Your task to perform on an android device: set the timer Image 0: 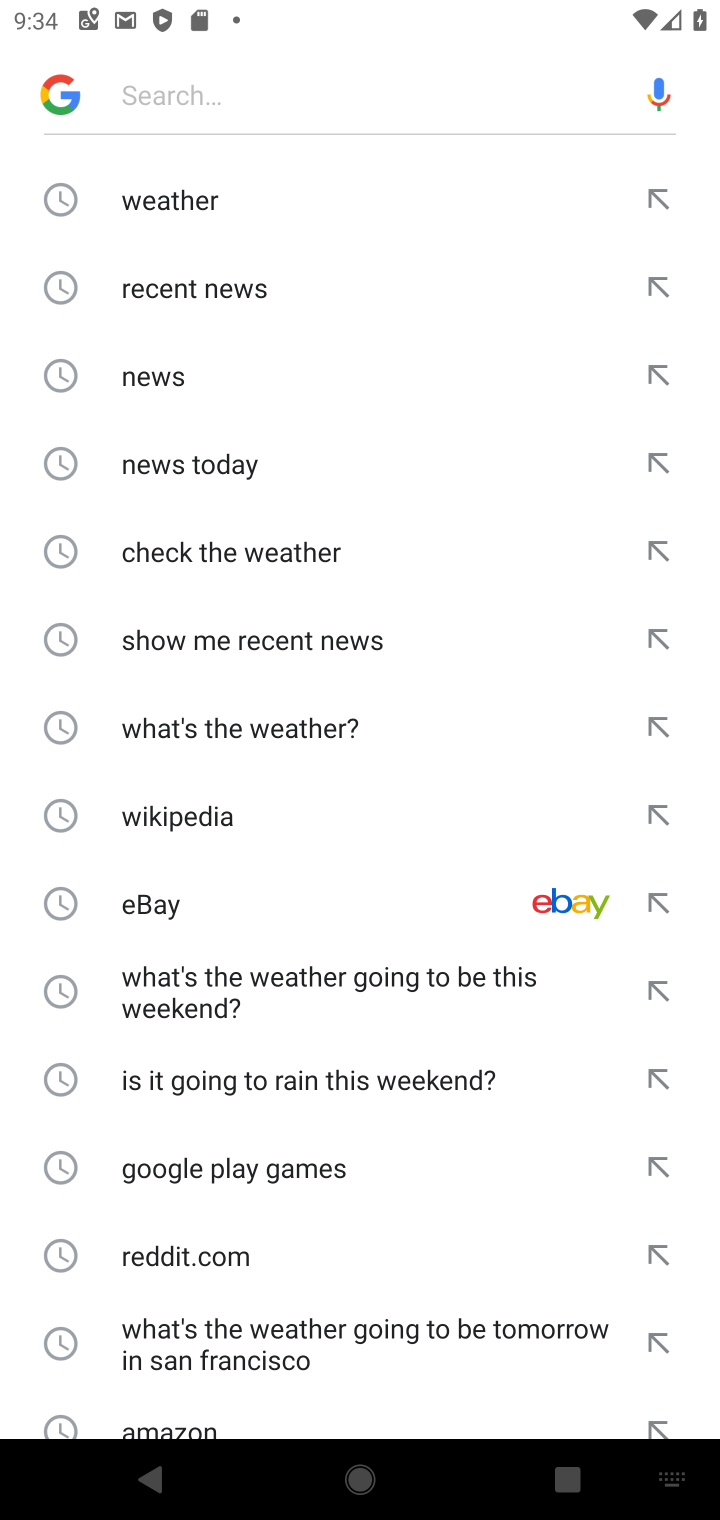
Step 0: click (39, 69)
Your task to perform on an android device: set the timer Image 1: 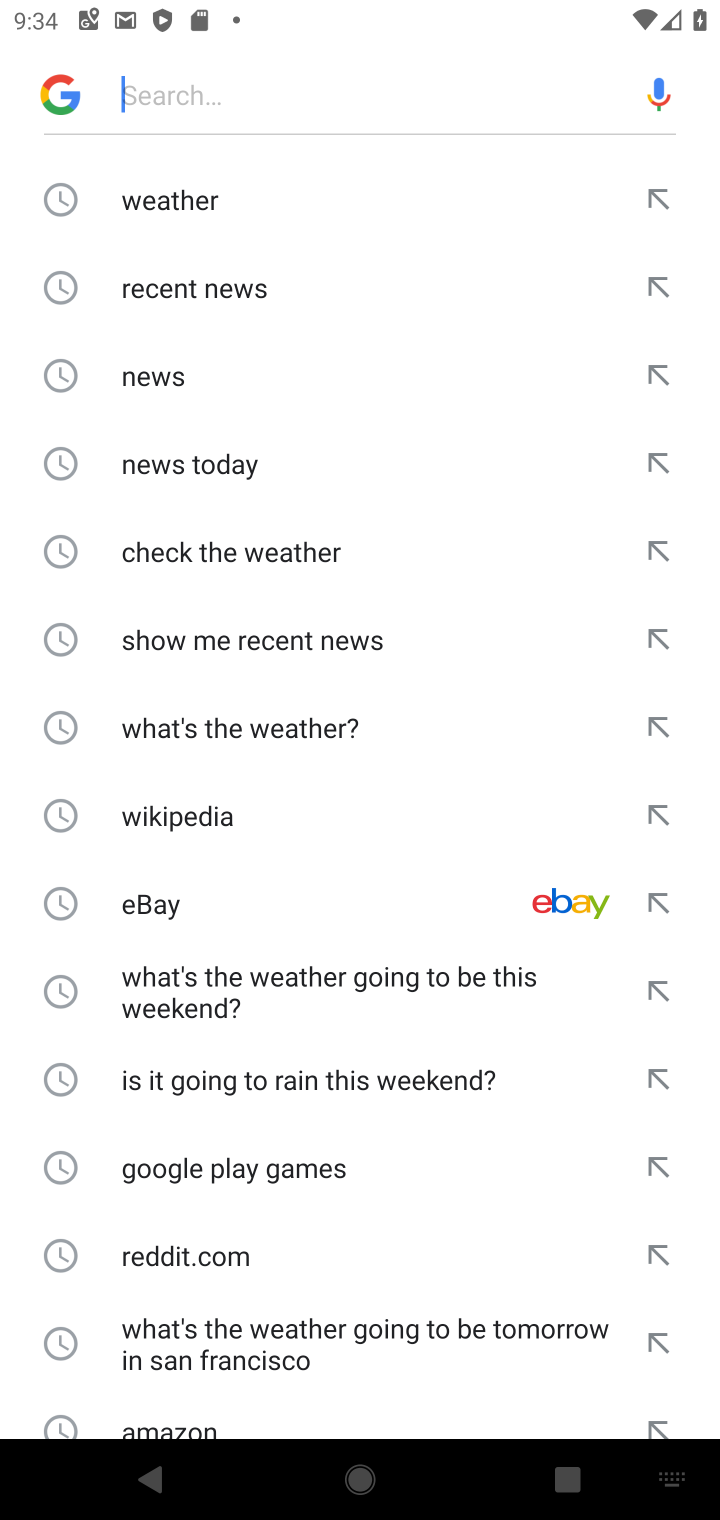
Step 1: press back button
Your task to perform on an android device: set the timer Image 2: 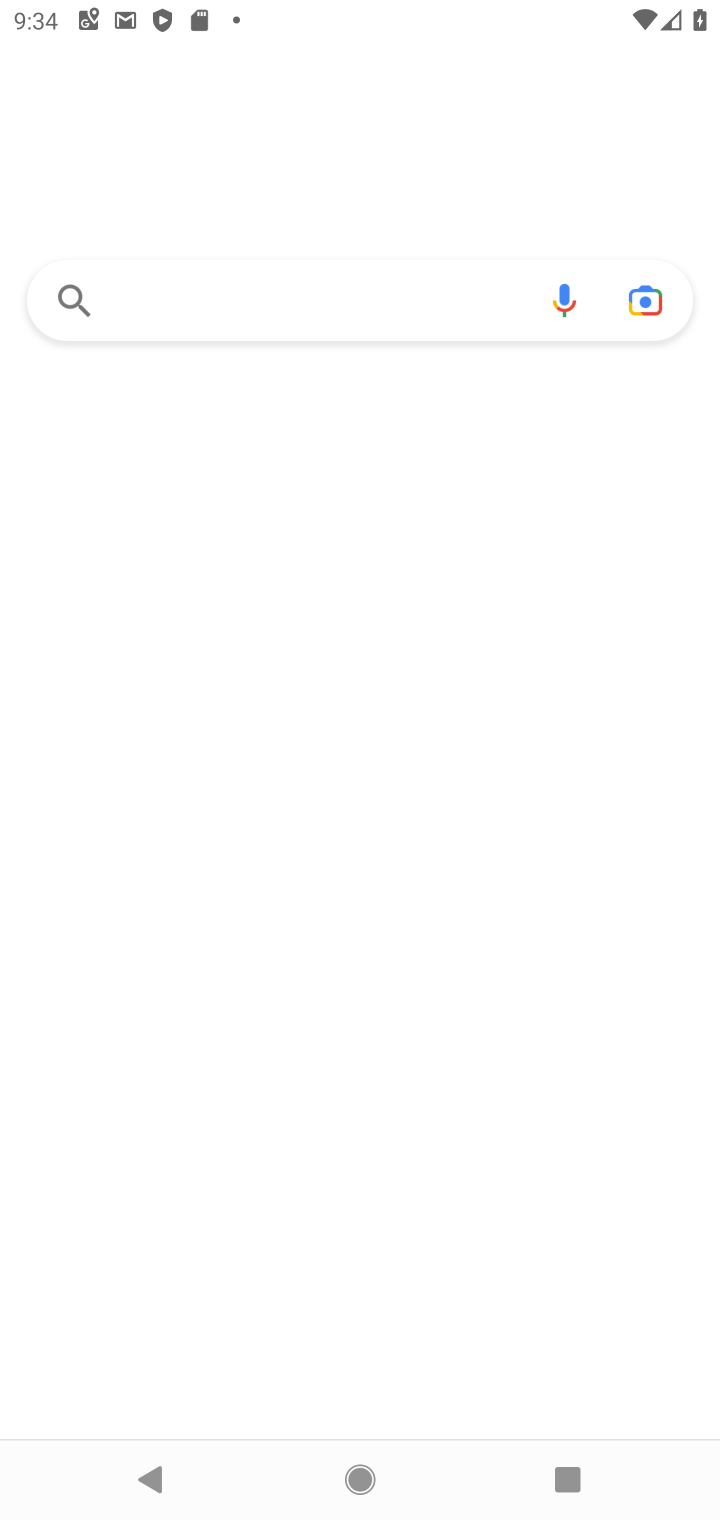
Step 2: press home button
Your task to perform on an android device: set the timer Image 3: 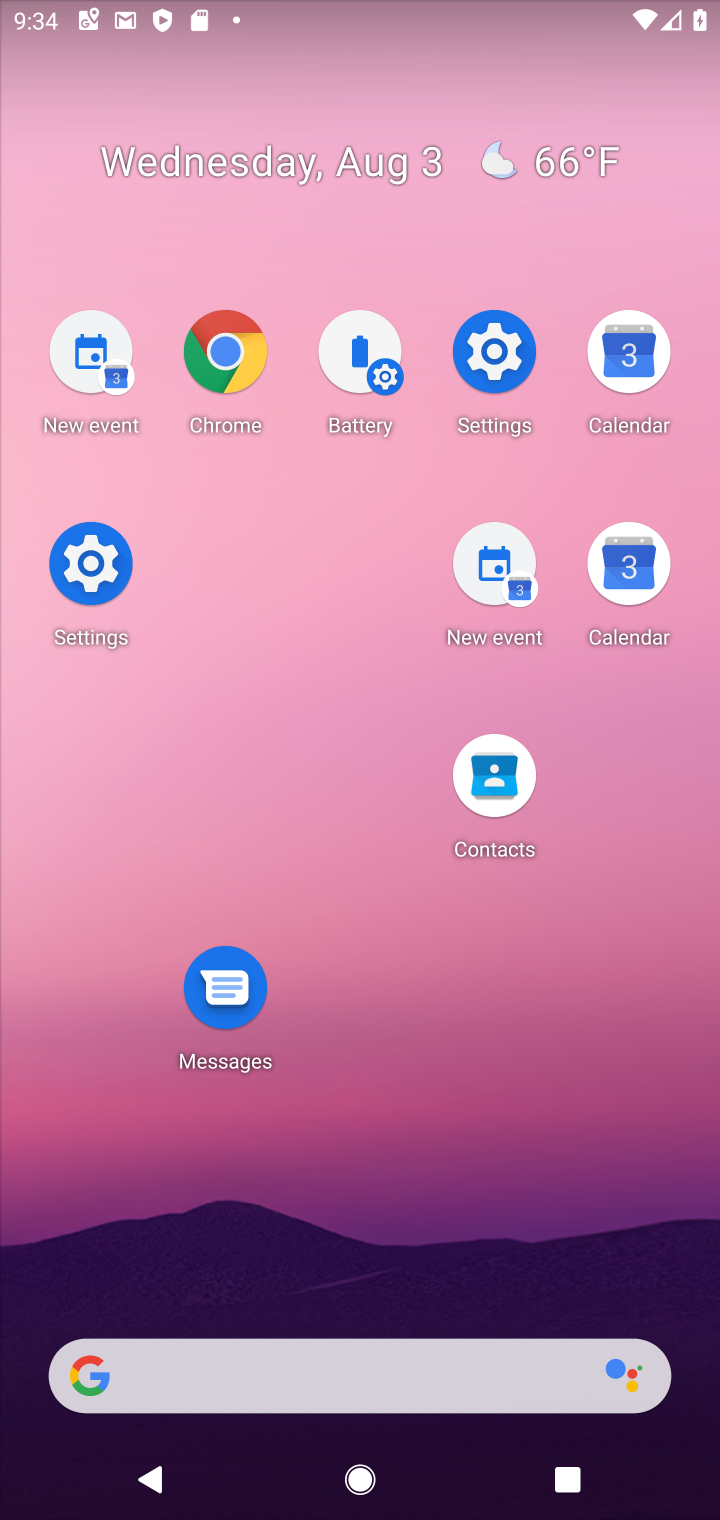
Step 3: press back button
Your task to perform on an android device: set the timer Image 4: 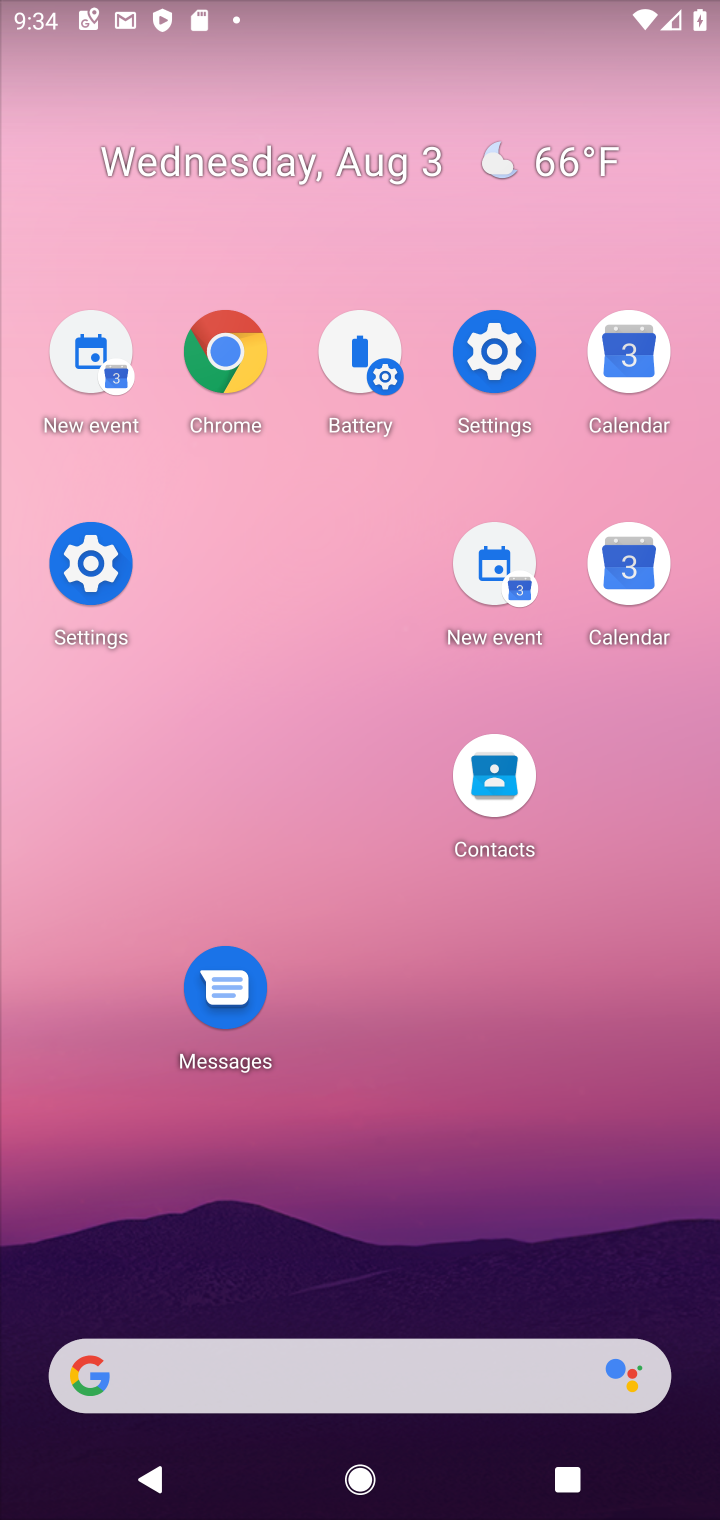
Step 4: press back button
Your task to perform on an android device: set the timer Image 5: 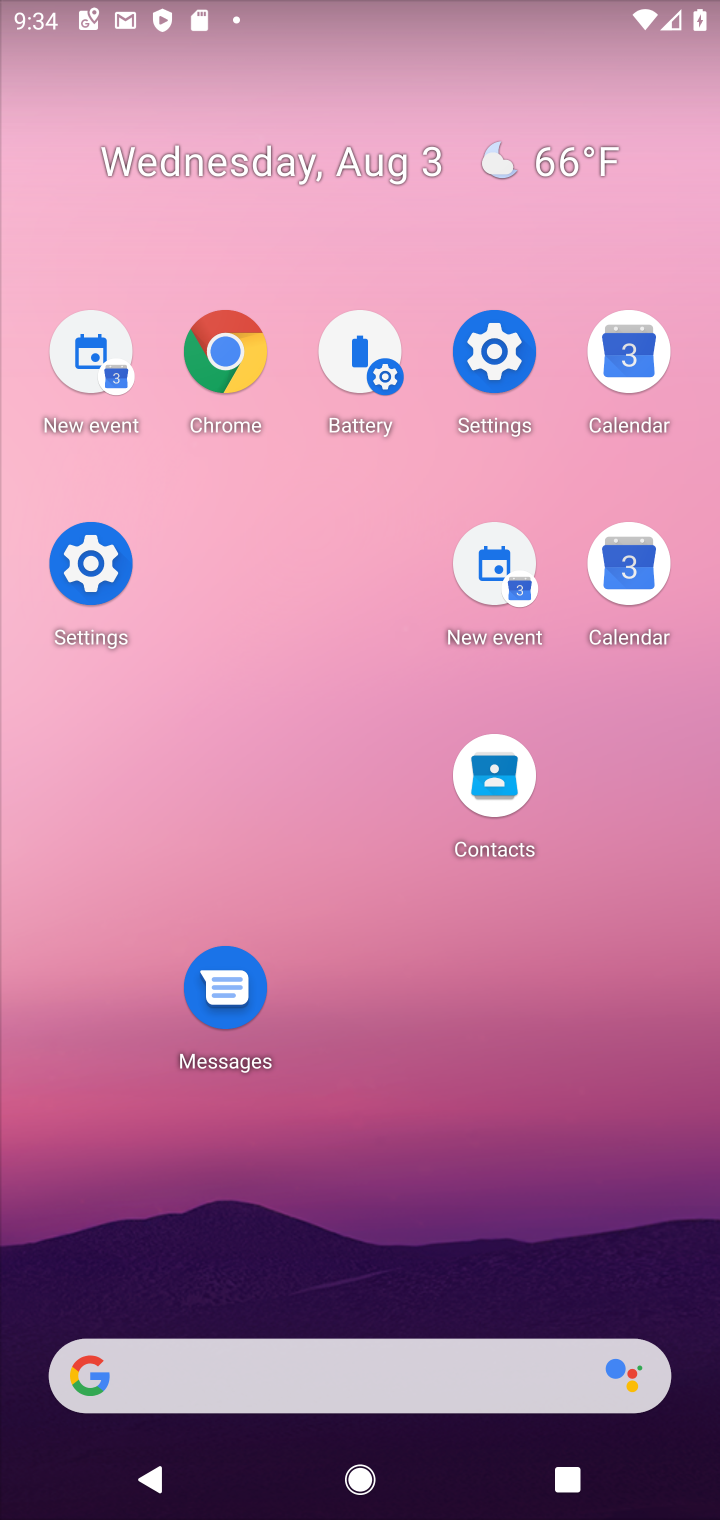
Step 5: drag from (374, 361) to (301, 531)
Your task to perform on an android device: set the timer Image 6: 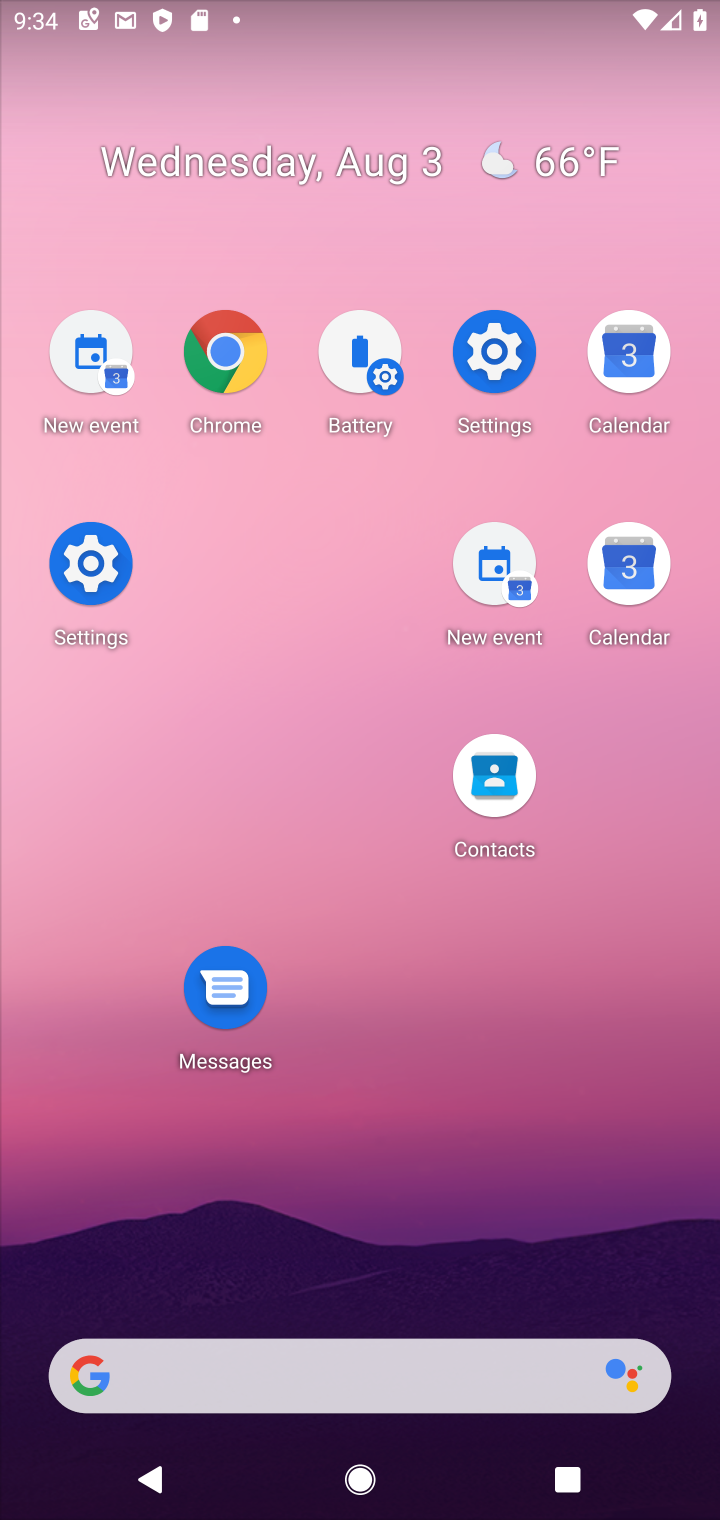
Step 6: drag from (329, 1001) to (315, 375)
Your task to perform on an android device: set the timer Image 7: 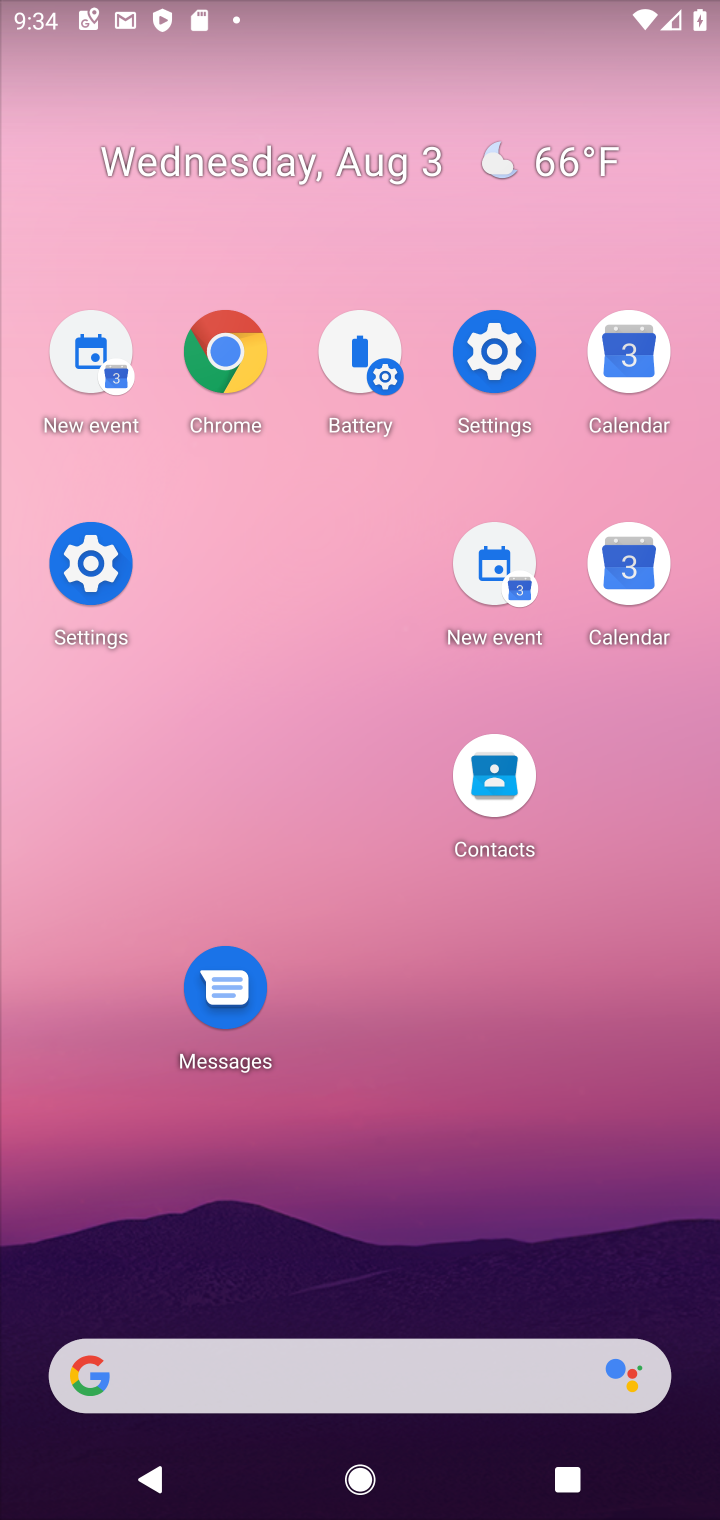
Step 7: drag from (317, 1090) to (256, 562)
Your task to perform on an android device: set the timer Image 8: 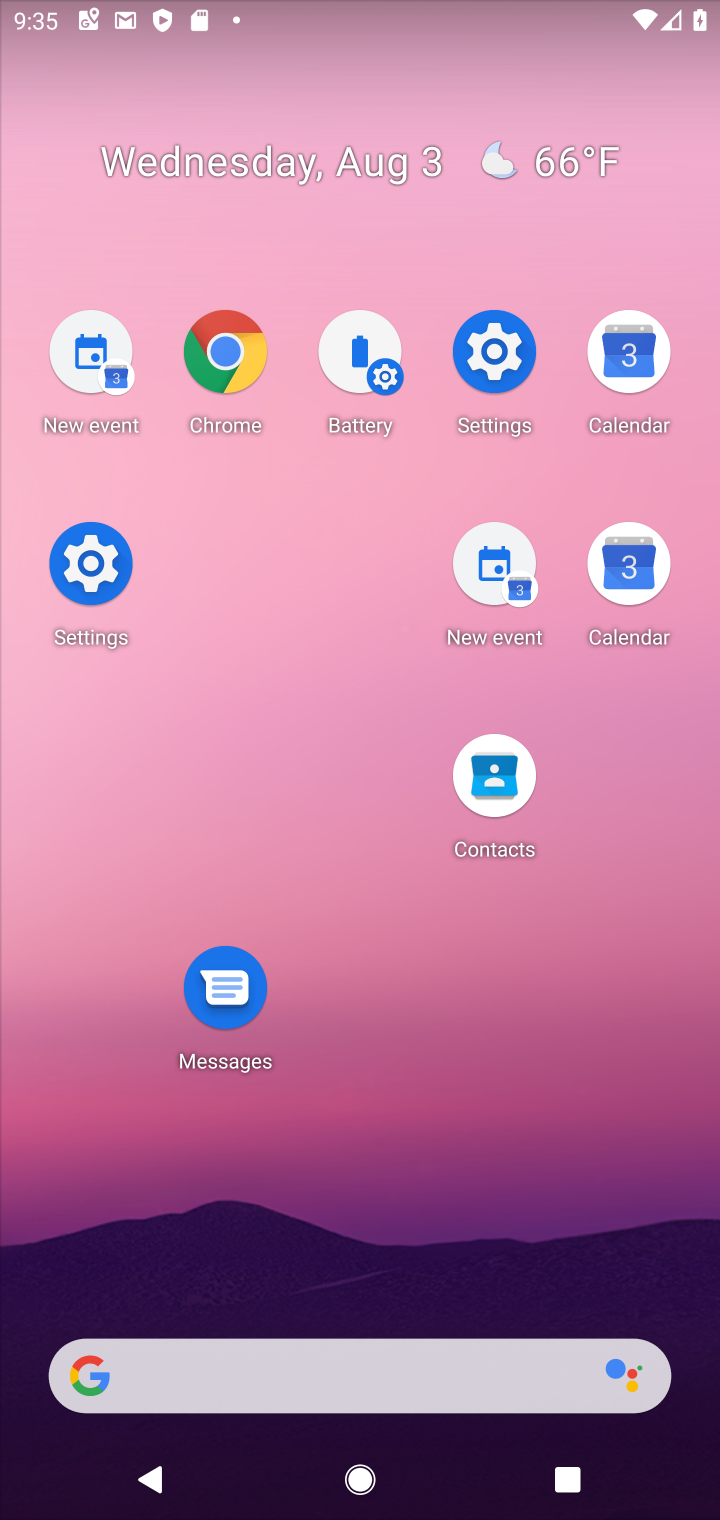
Step 8: drag from (472, 1082) to (405, 262)
Your task to perform on an android device: set the timer Image 9: 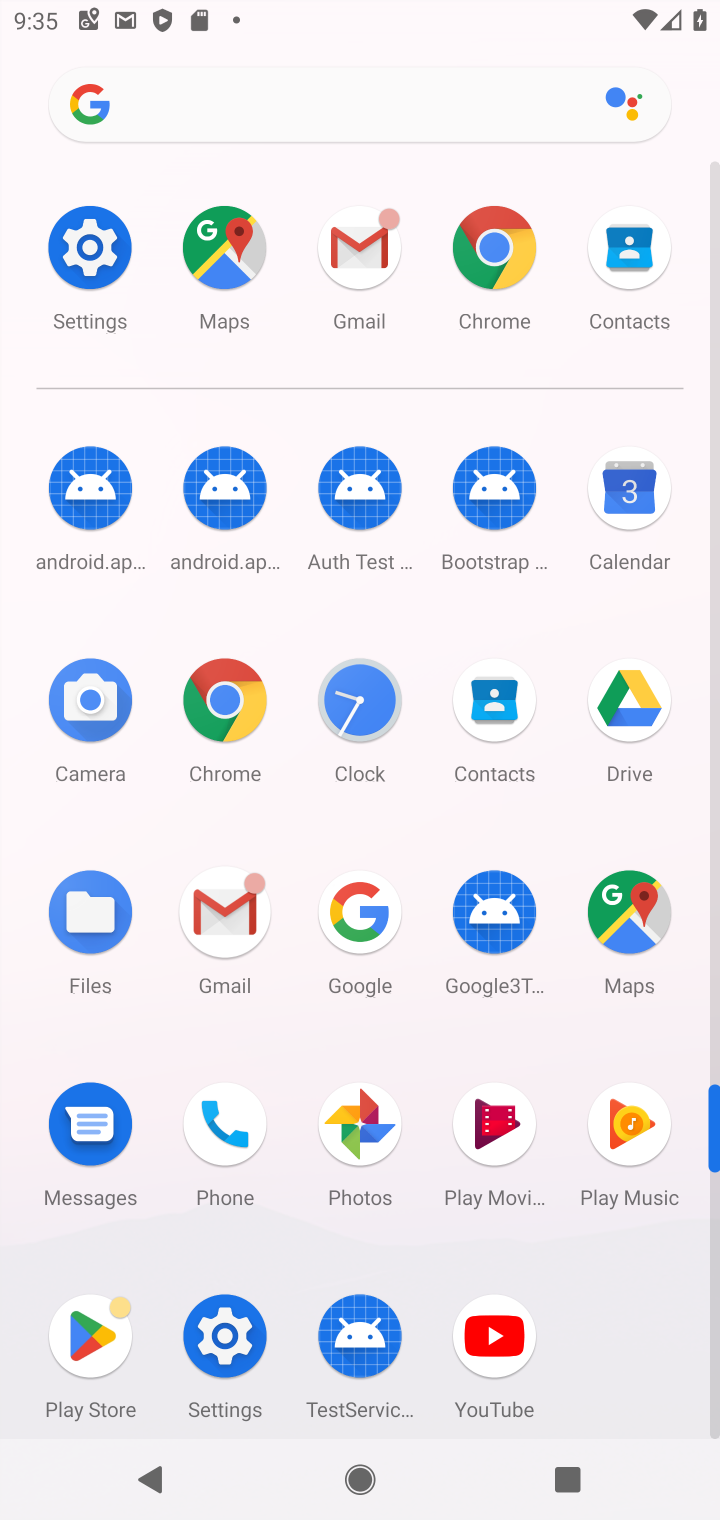
Step 9: click (354, 686)
Your task to perform on an android device: set the timer Image 10: 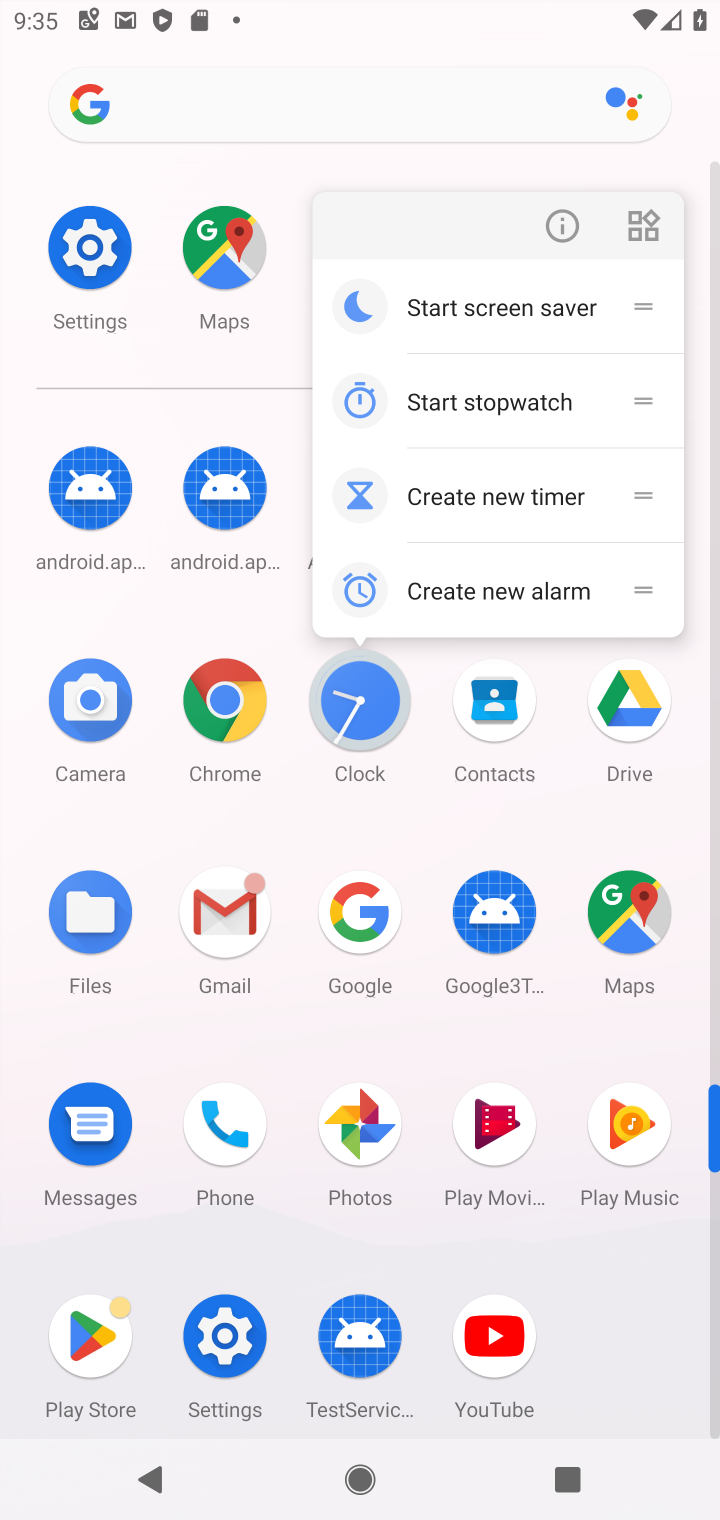
Step 10: click (358, 690)
Your task to perform on an android device: set the timer Image 11: 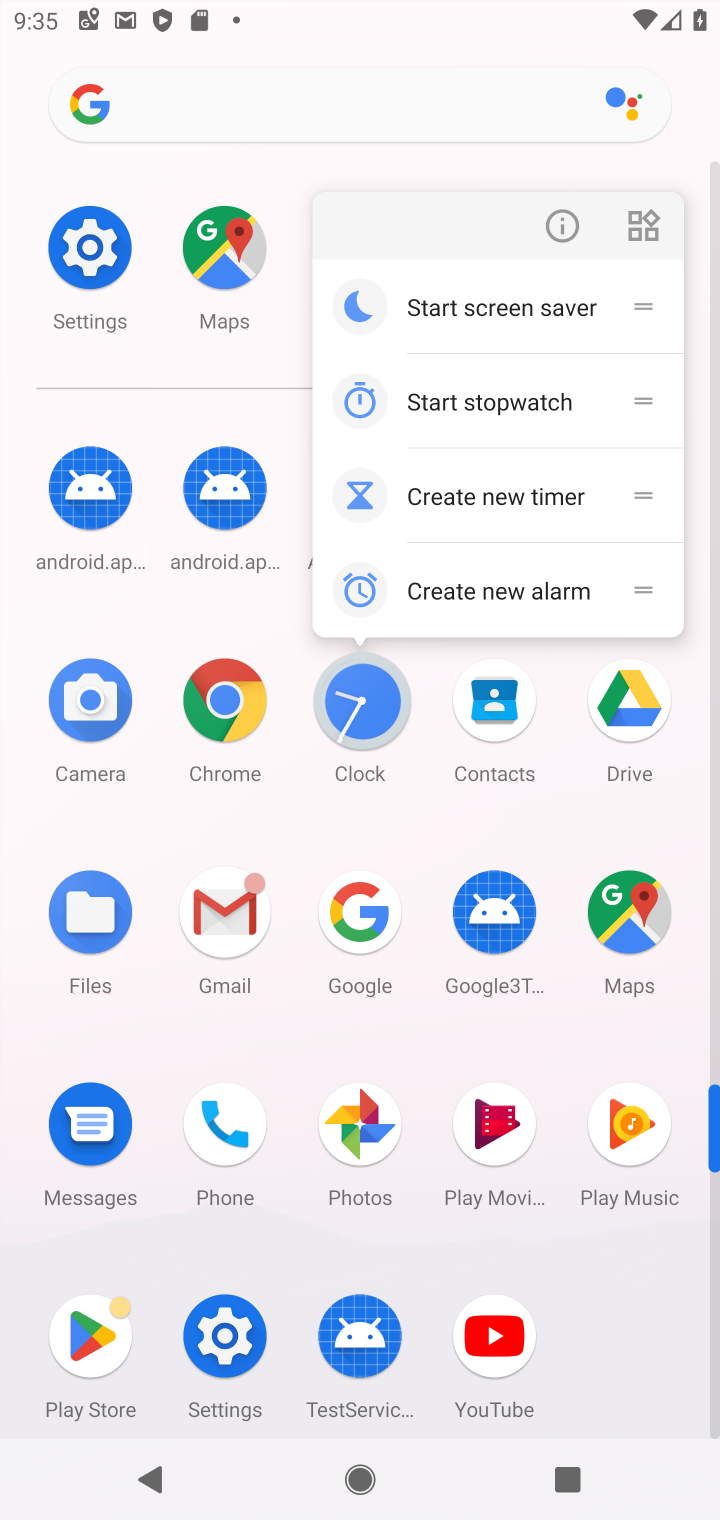
Step 11: click (370, 699)
Your task to perform on an android device: set the timer Image 12: 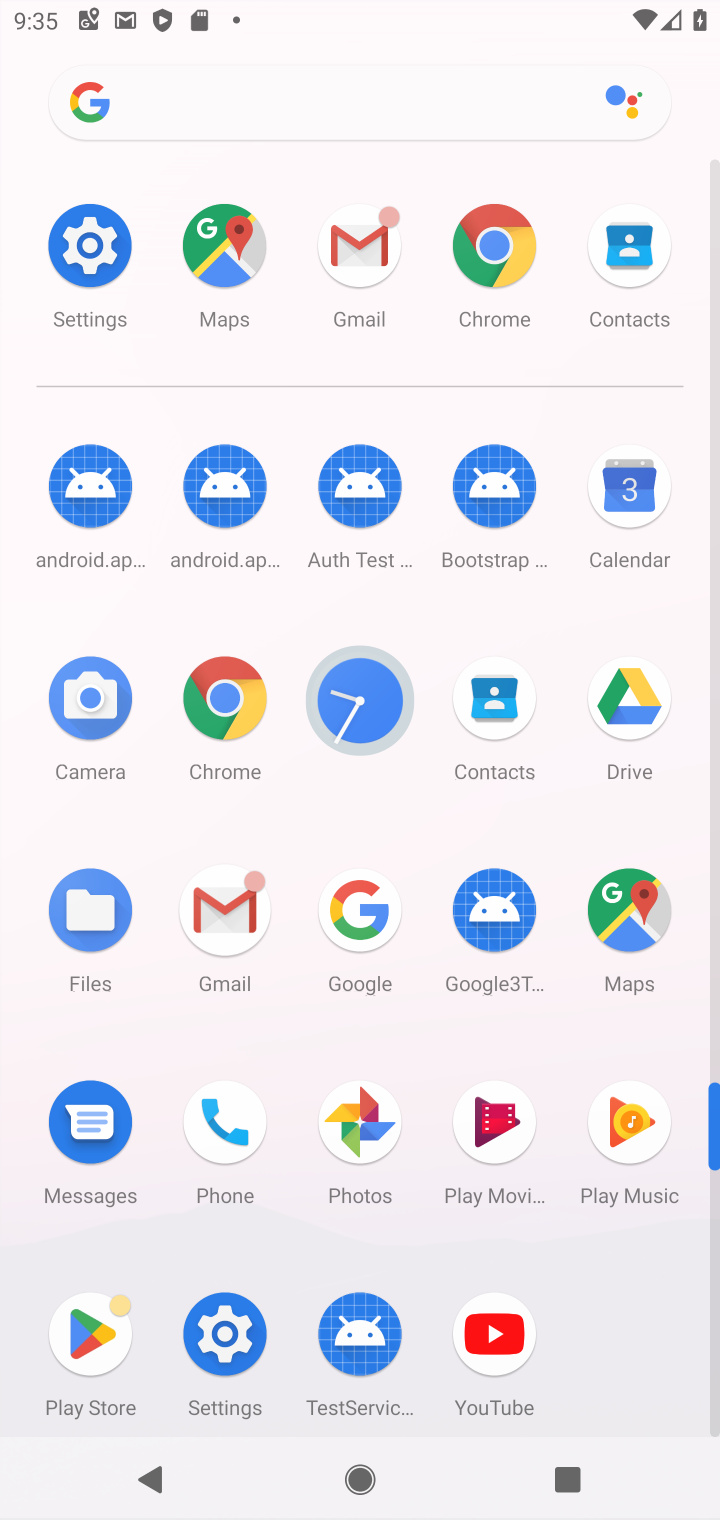
Step 12: click (379, 708)
Your task to perform on an android device: set the timer Image 13: 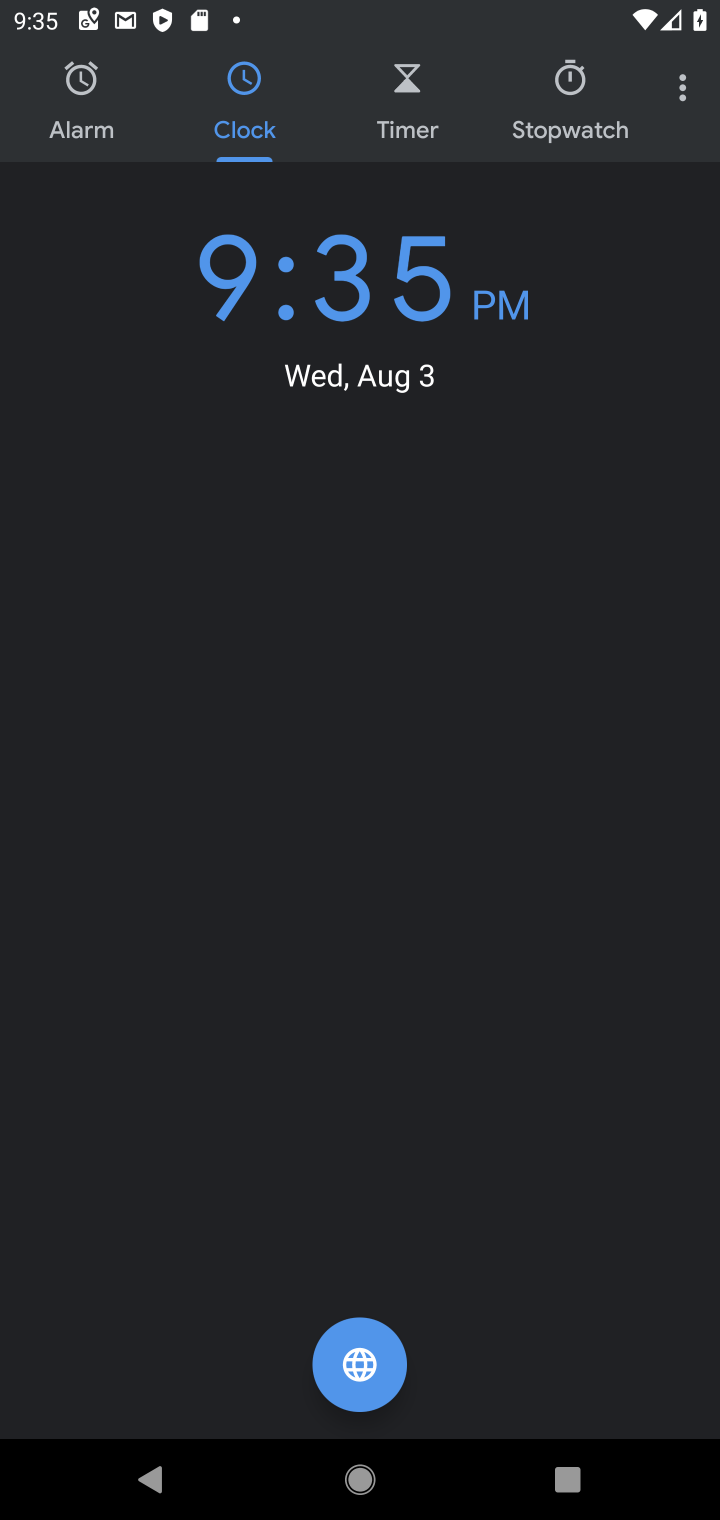
Step 13: click (398, 97)
Your task to perform on an android device: set the timer Image 14: 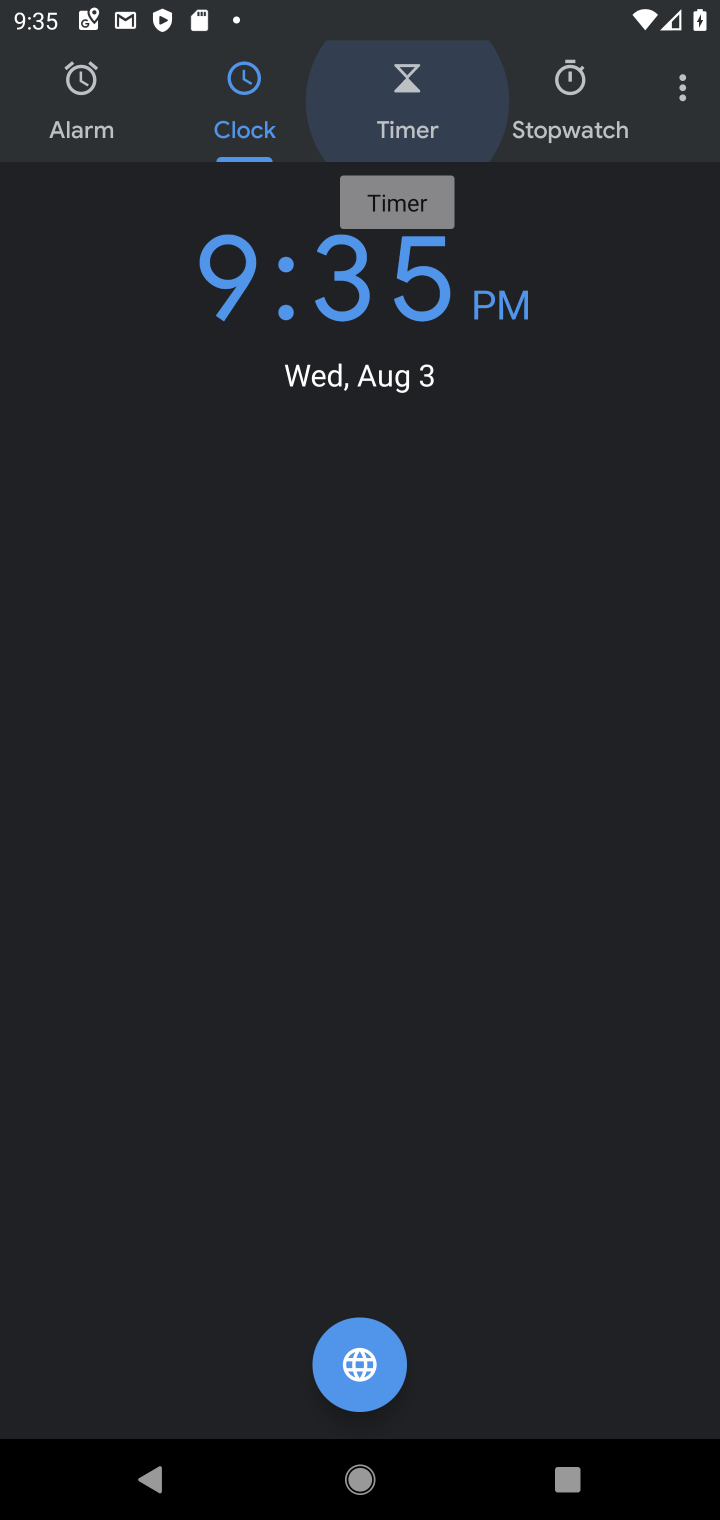
Step 14: click (405, 101)
Your task to perform on an android device: set the timer Image 15: 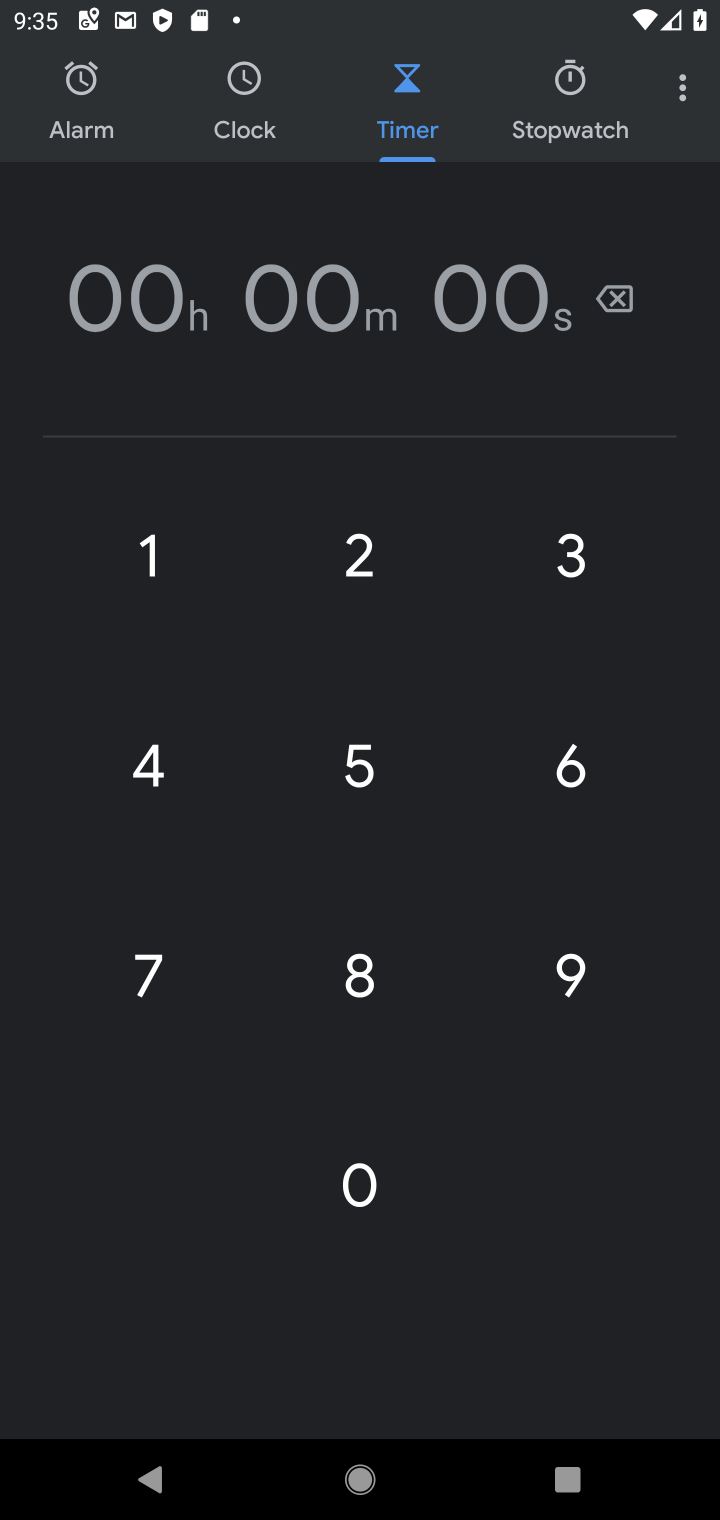
Step 15: click (359, 768)
Your task to perform on an android device: set the timer Image 16: 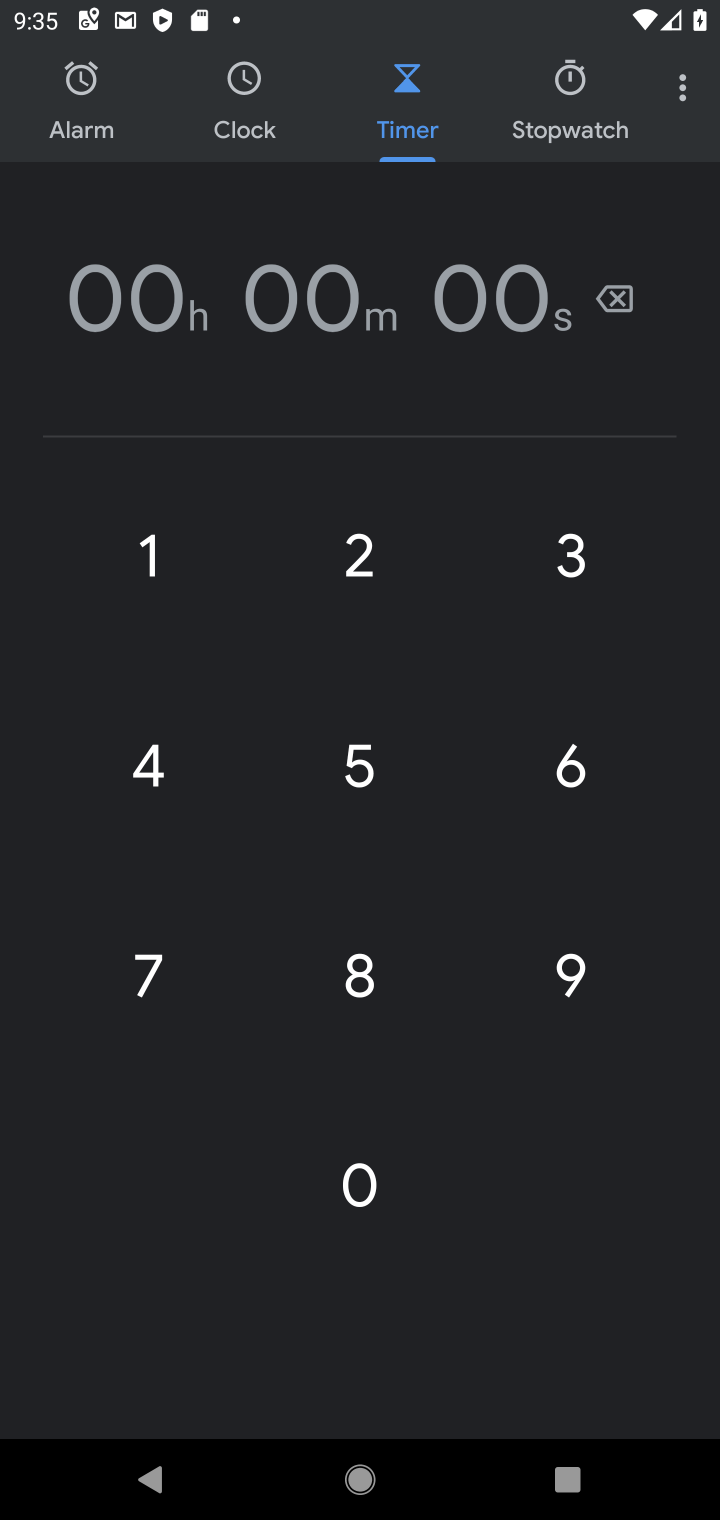
Step 16: click (359, 768)
Your task to perform on an android device: set the timer Image 17: 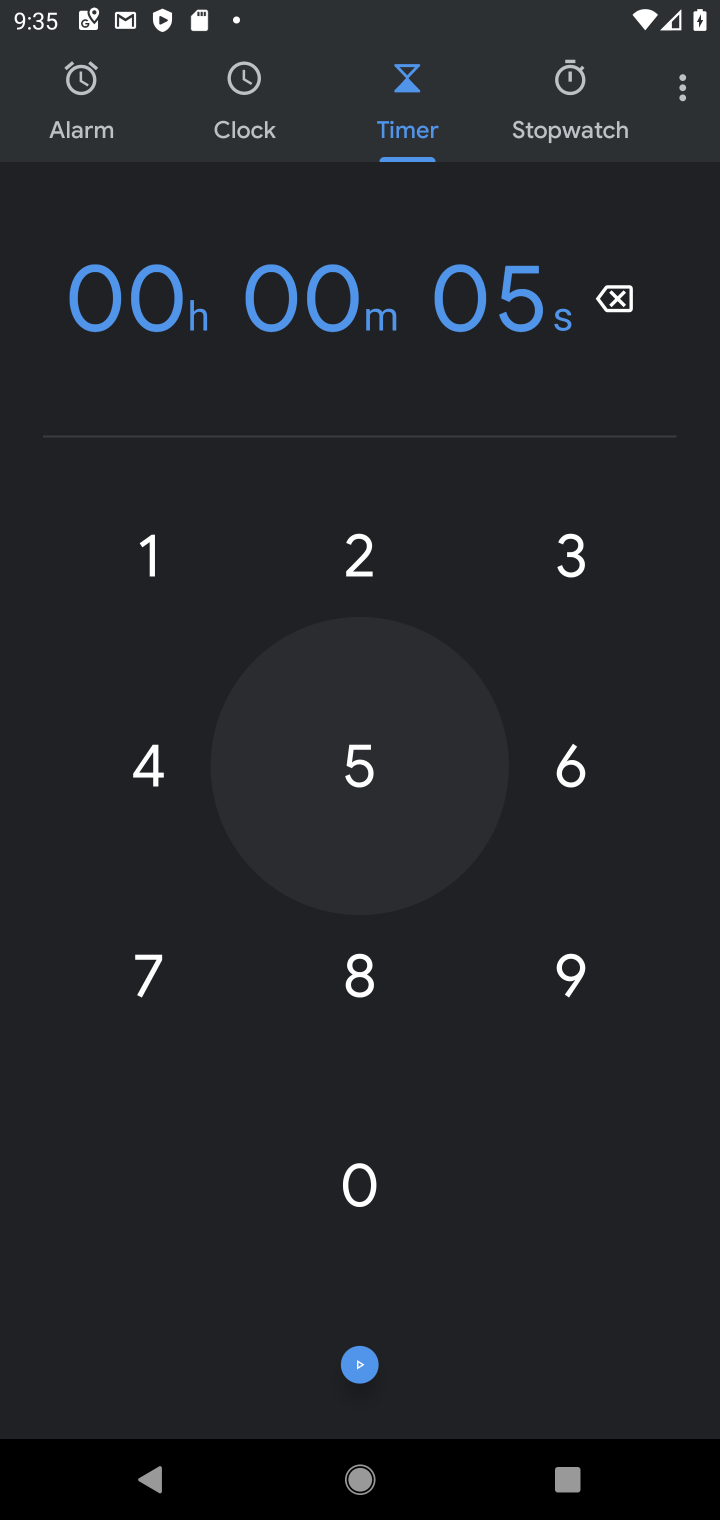
Step 17: click (359, 768)
Your task to perform on an android device: set the timer Image 18: 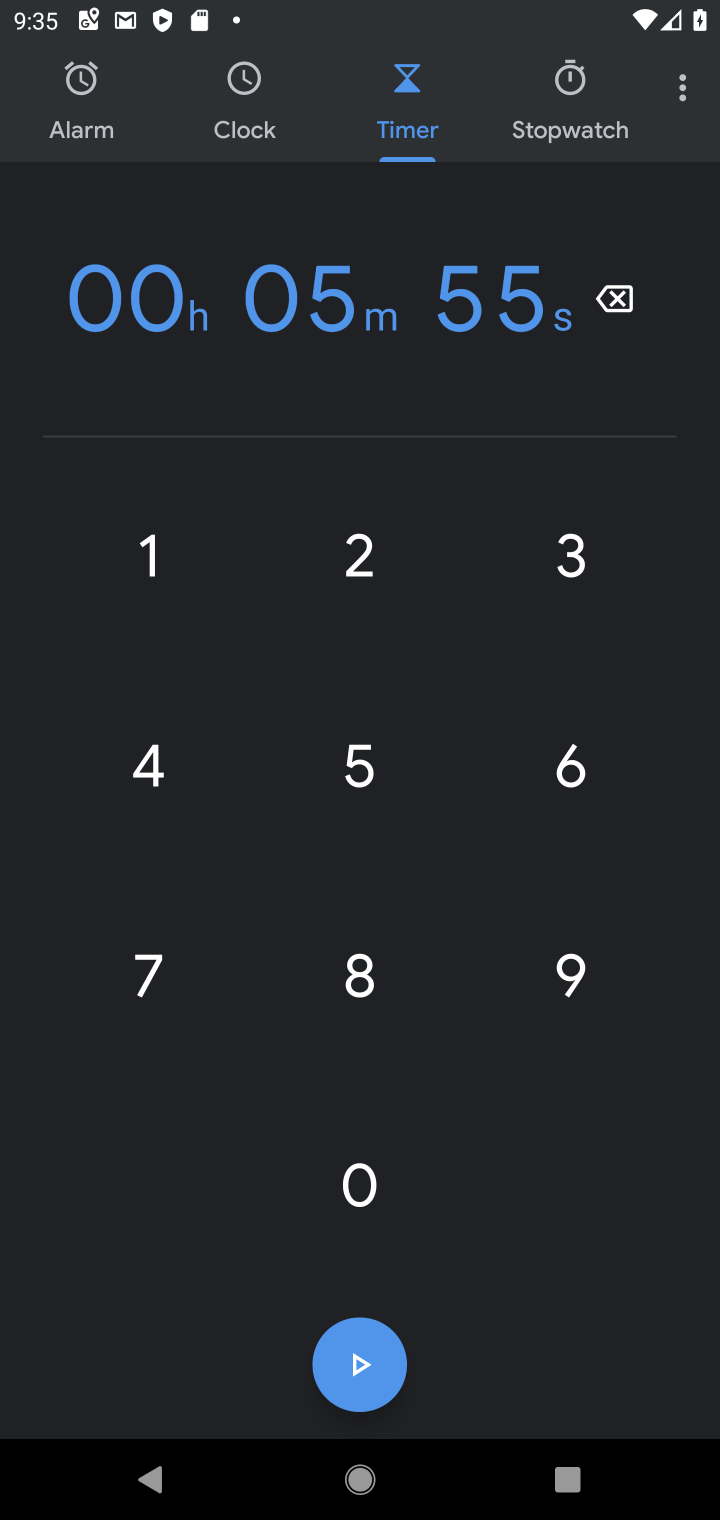
Step 18: click (359, 768)
Your task to perform on an android device: set the timer Image 19: 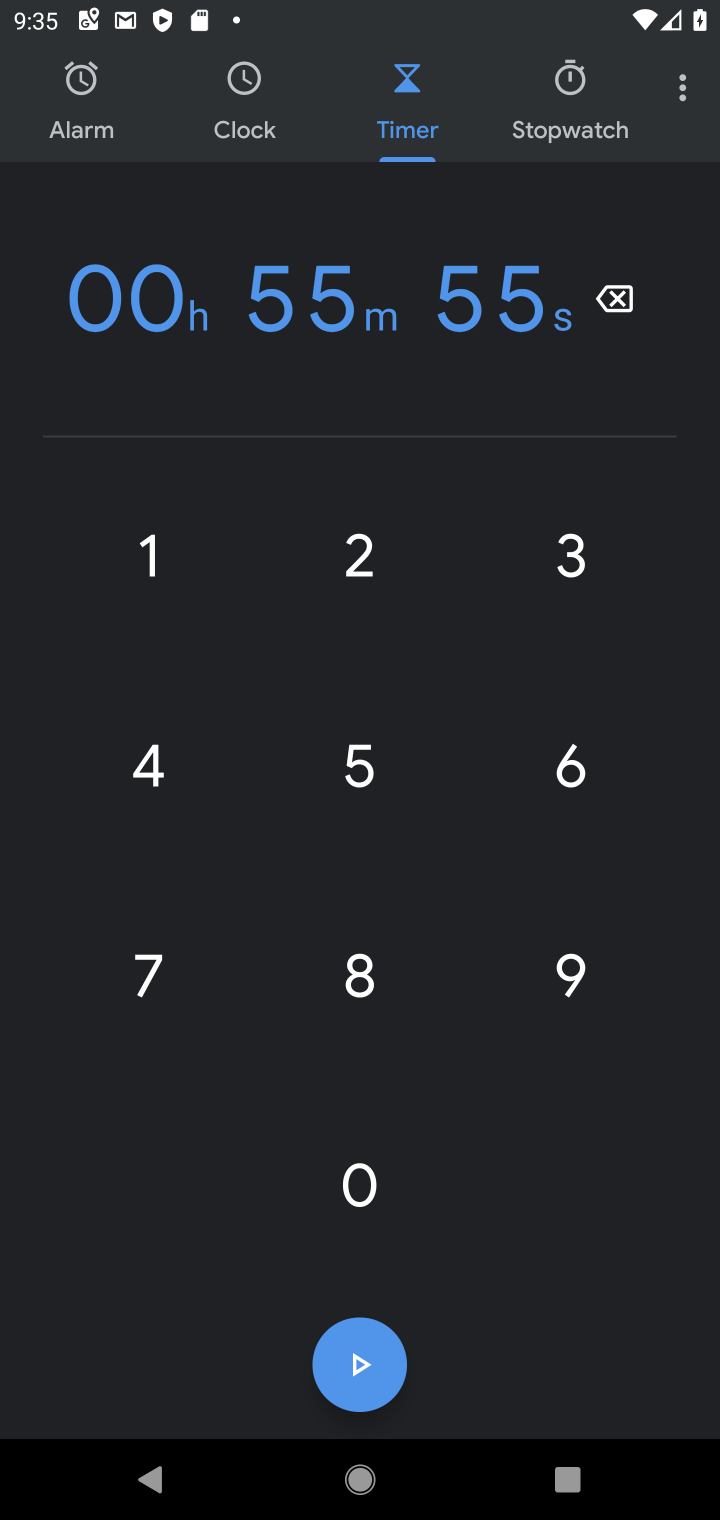
Step 19: click (359, 761)
Your task to perform on an android device: set the timer Image 20: 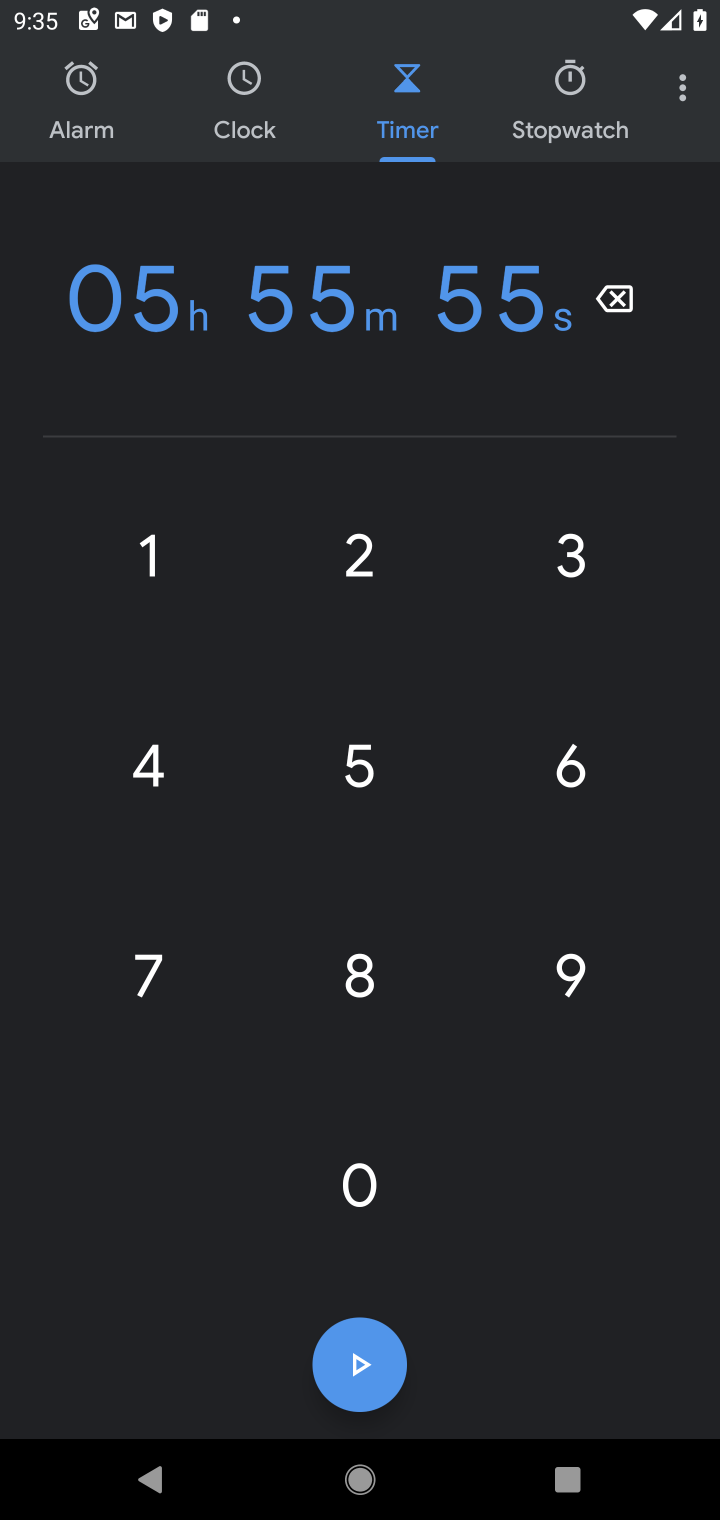
Step 20: click (353, 1375)
Your task to perform on an android device: set the timer Image 21: 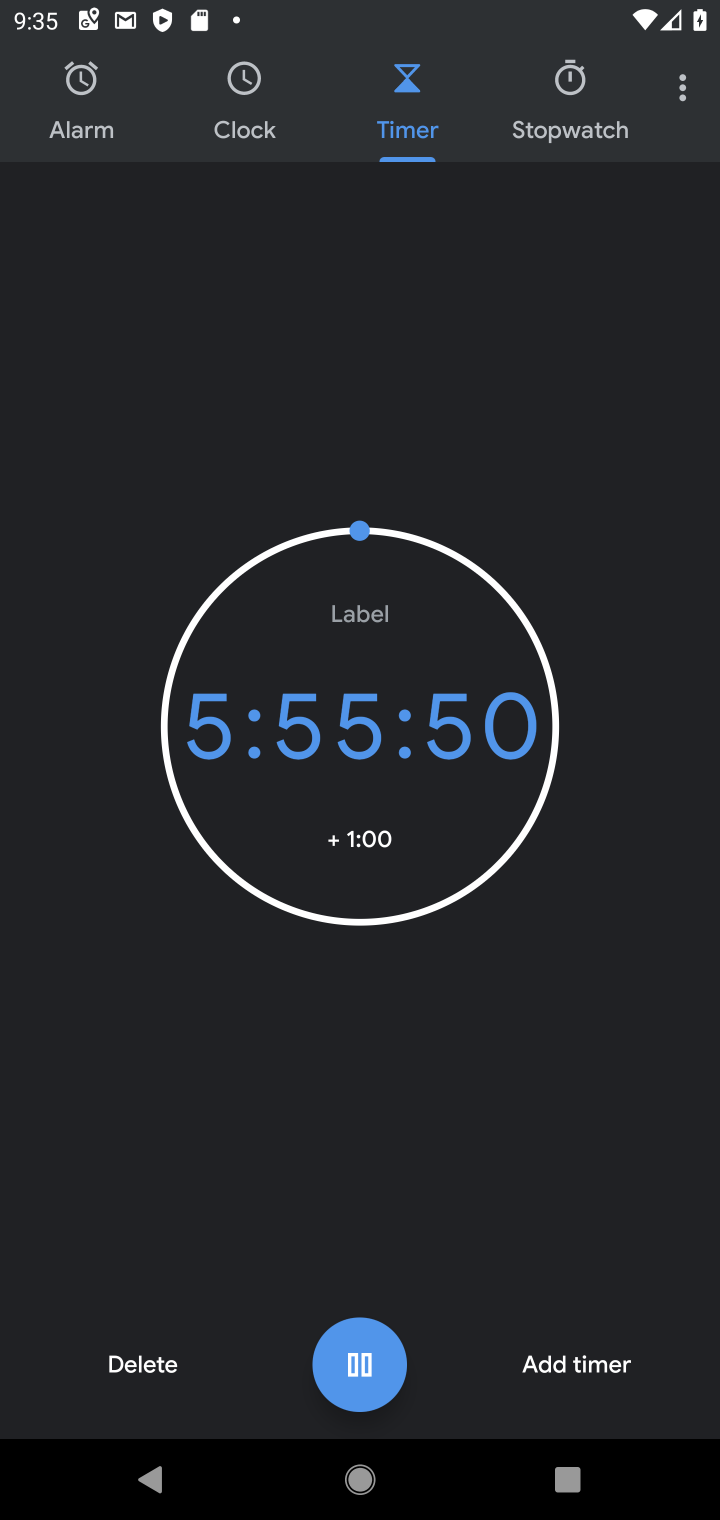
Step 21: click (349, 1365)
Your task to perform on an android device: set the timer Image 22: 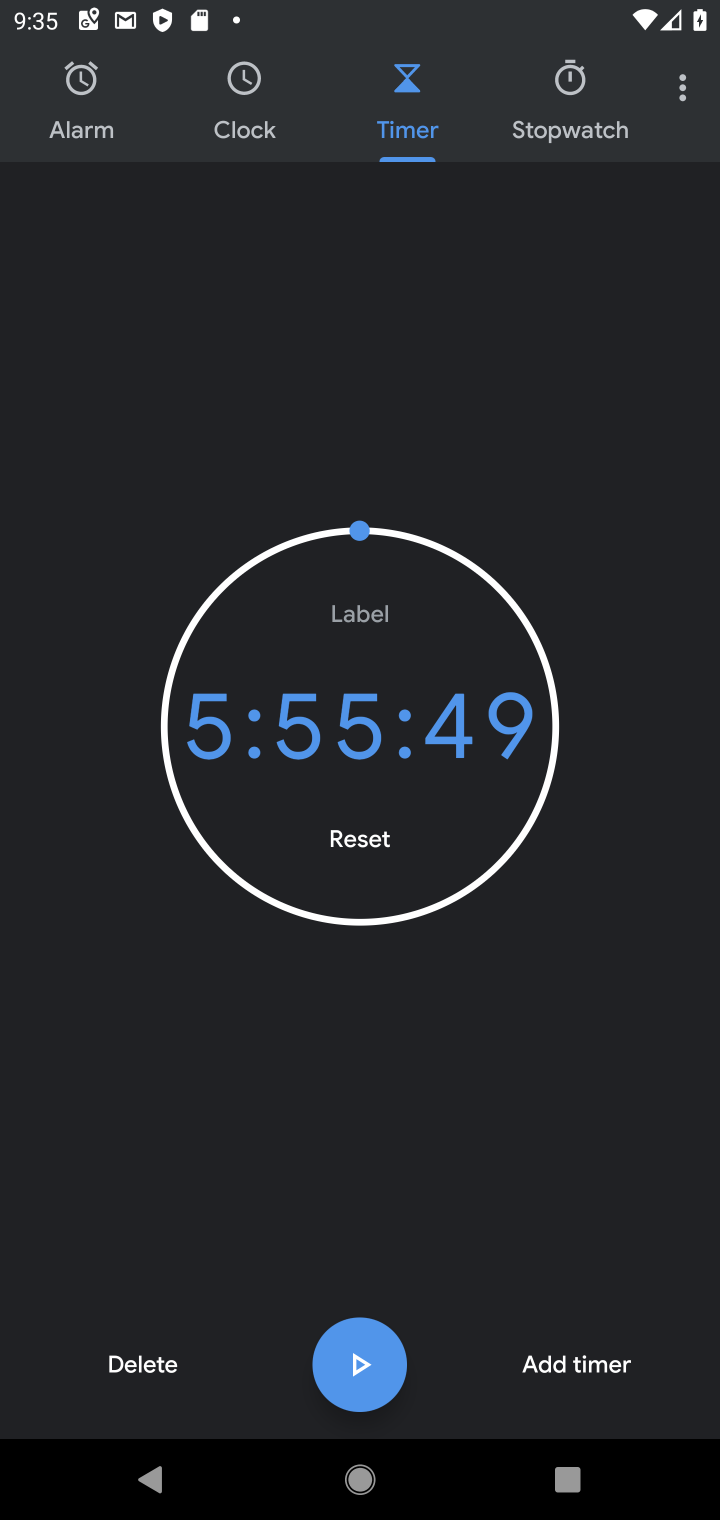
Step 22: task complete